Your task to perform on an android device: Add "asus zenbook" to the cart on newegg.com, then select checkout. Image 0: 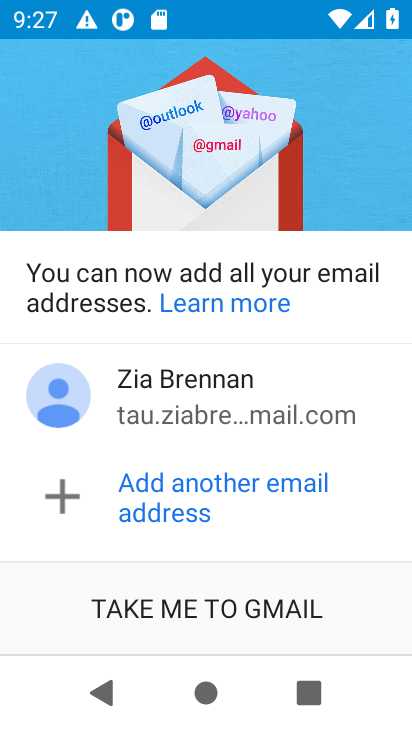
Step 0: press home button
Your task to perform on an android device: Add "asus zenbook" to the cart on newegg.com, then select checkout. Image 1: 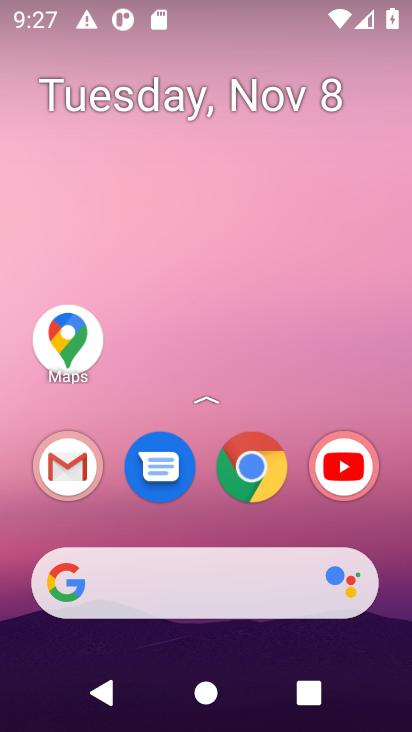
Step 1: click (156, 591)
Your task to perform on an android device: Add "asus zenbook" to the cart on newegg.com, then select checkout. Image 2: 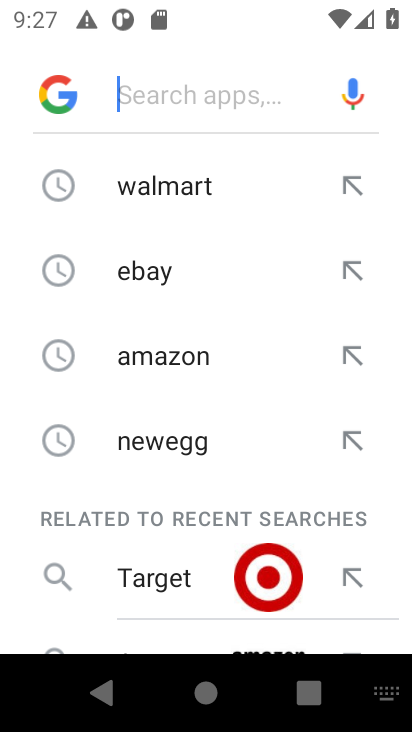
Step 2: type "newegg"
Your task to perform on an android device: Add "asus zenbook" to the cart on newegg.com, then select checkout. Image 3: 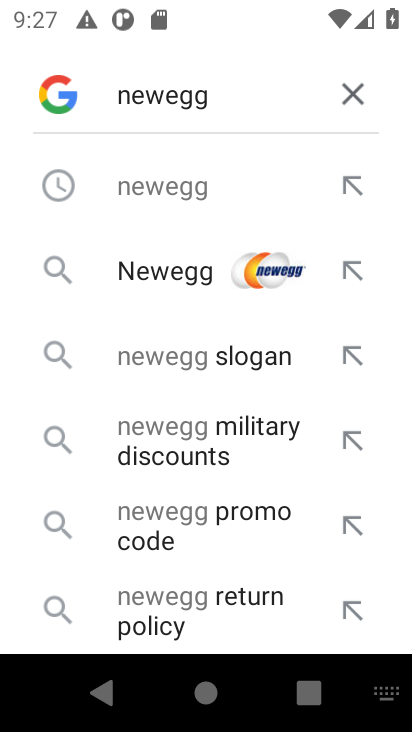
Step 3: click (174, 274)
Your task to perform on an android device: Add "asus zenbook" to the cart on newegg.com, then select checkout. Image 4: 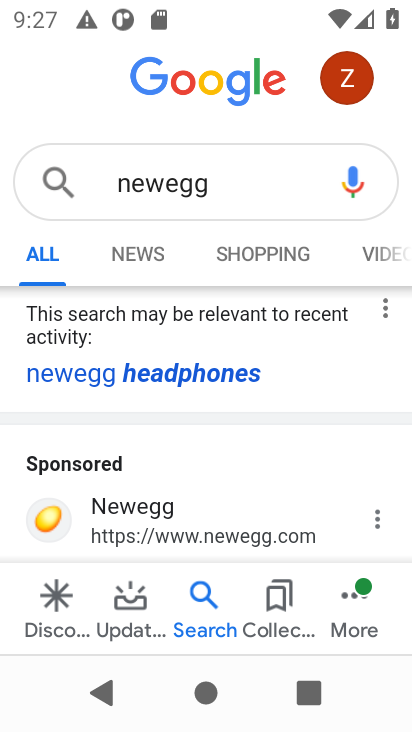
Step 4: click (148, 517)
Your task to perform on an android device: Add "asus zenbook" to the cart on newegg.com, then select checkout. Image 5: 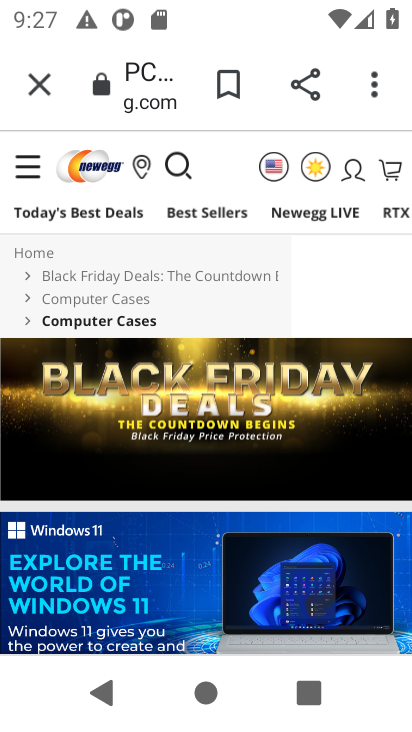
Step 5: task complete